Your task to perform on an android device: Open Chrome and go to settings Image 0: 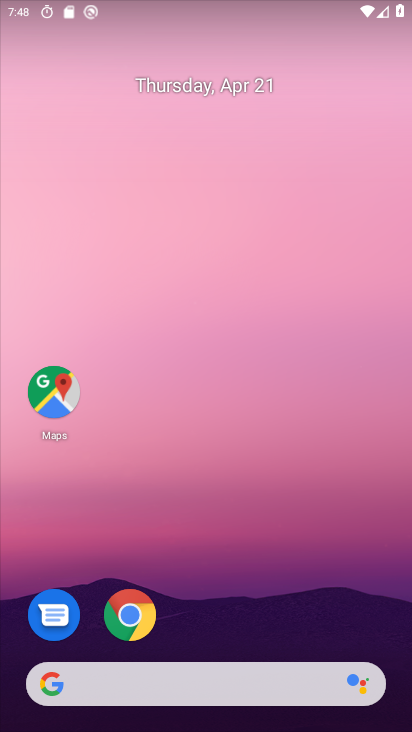
Step 0: drag from (207, 694) to (380, 174)
Your task to perform on an android device: Open Chrome and go to settings Image 1: 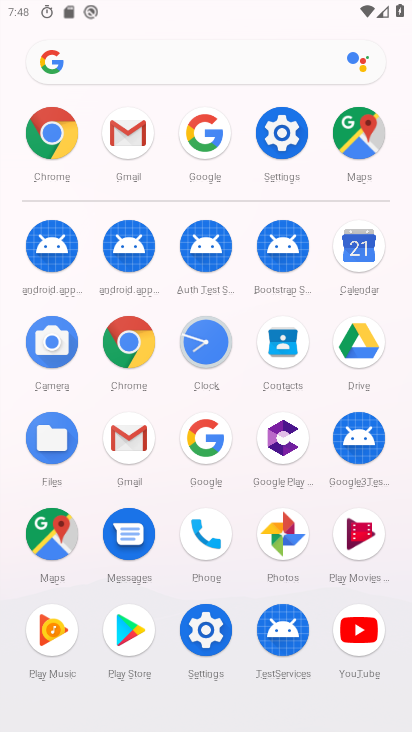
Step 1: click (46, 136)
Your task to perform on an android device: Open Chrome and go to settings Image 2: 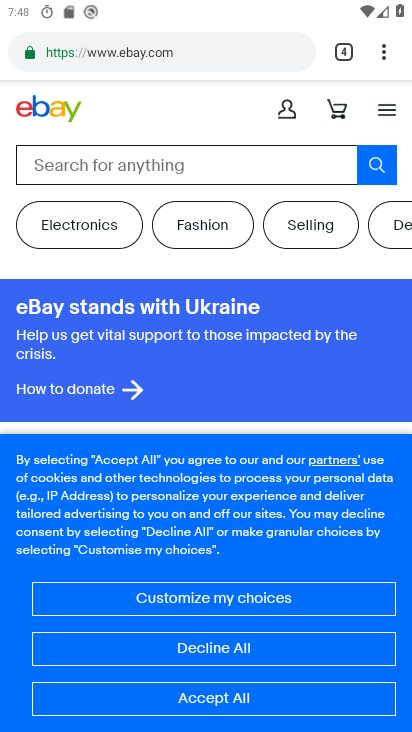
Step 2: click (379, 60)
Your task to perform on an android device: Open Chrome and go to settings Image 3: 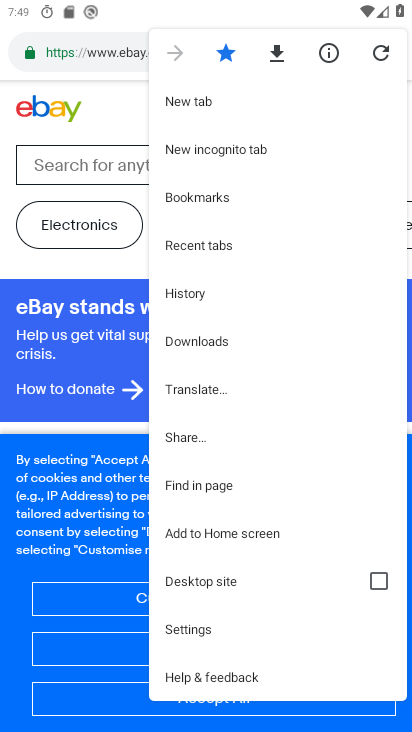
Step 3: click (183, 630)
Your task to perform on an android device: Open Chrome and go to settings Image 4: 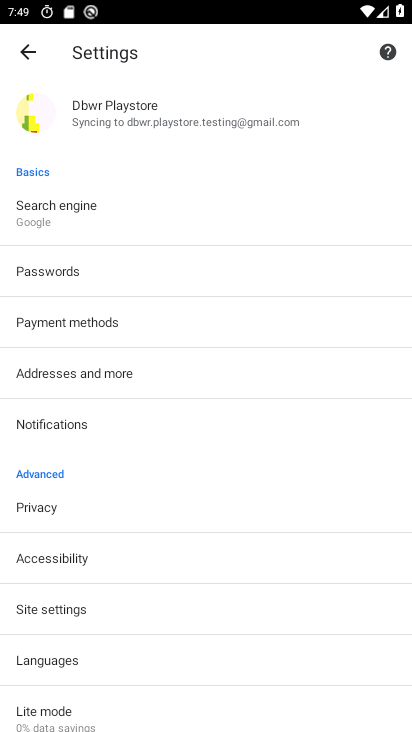
Step 4: task complete